Your task to perform on an android device: all mails in gmail Image 0: 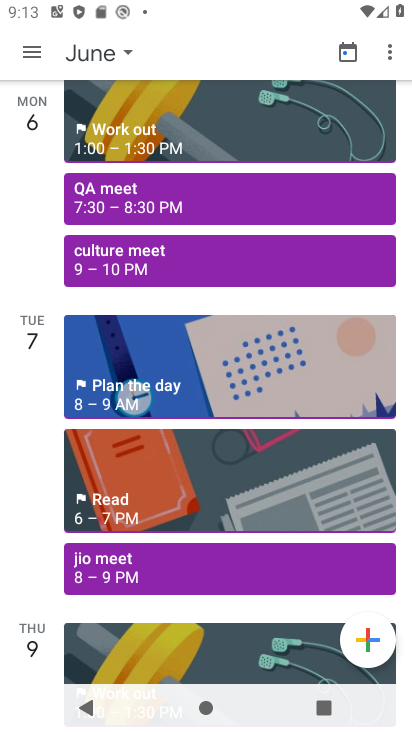
Step 0: press home button
Your task to perform on an android device: all mails in gmail Image 1: 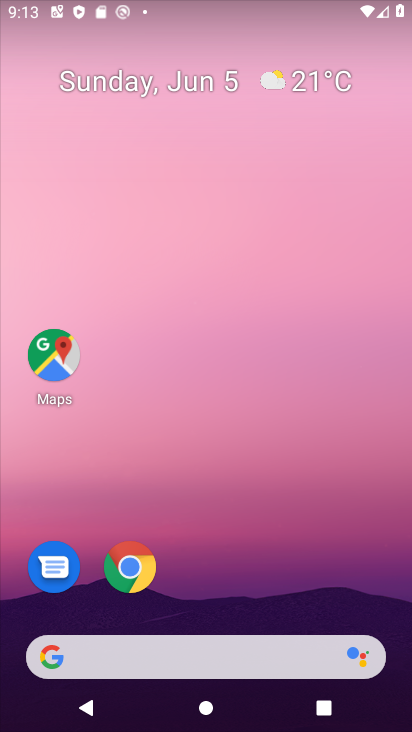
Step 1: drag from (229, 639) to (211, 386)
Your task to perform on an android device: all mails in gmail Image 2: 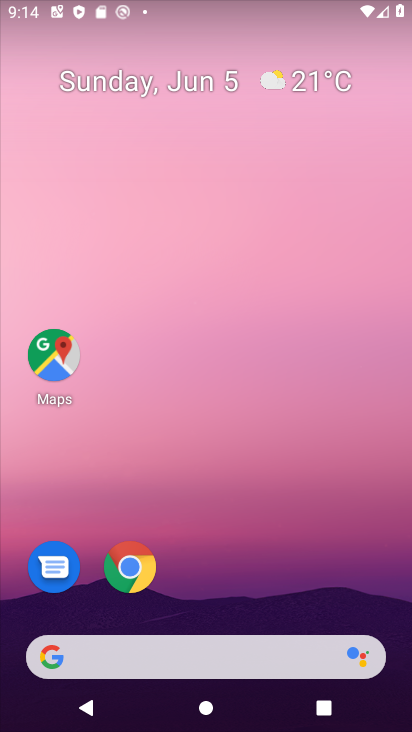
Step 2: drag from (223, 637) to (233, 241)
Your task to perform on an android device: all mails in gmail Image 3: 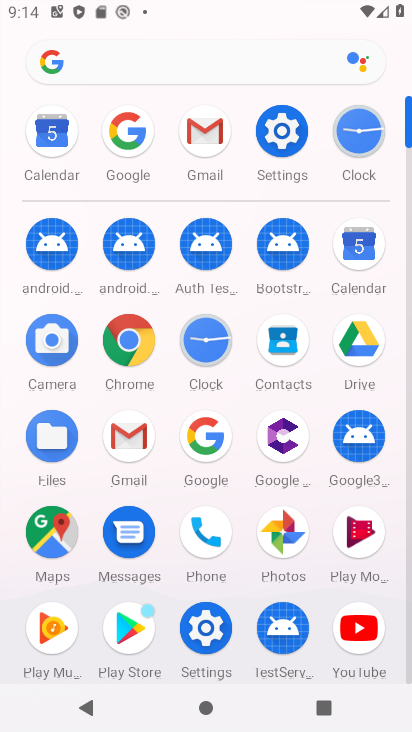
Step 3: click (199, 138)
Your task to perform on an android device: all mails in gmail Image 4: 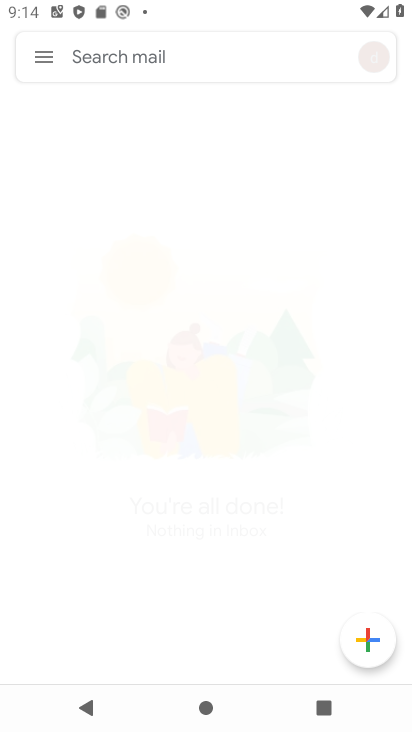
Step 4: click (47, 57)
Your task to perform on an android device: all mails in gmail Image 5: 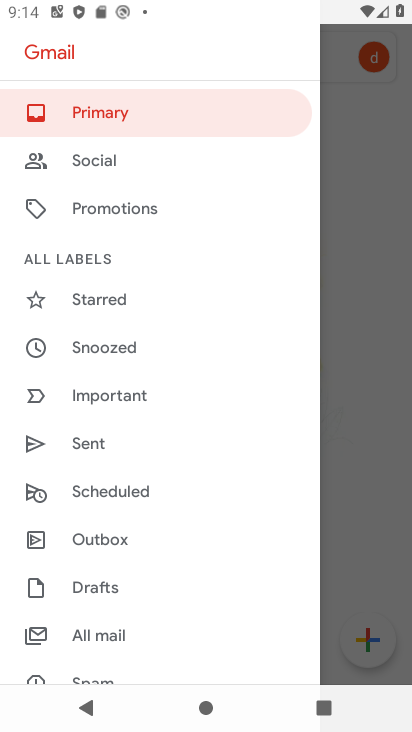
Step 5: click (108, 628)
Your task to perform on an android device: all mails in gmail Image 6: 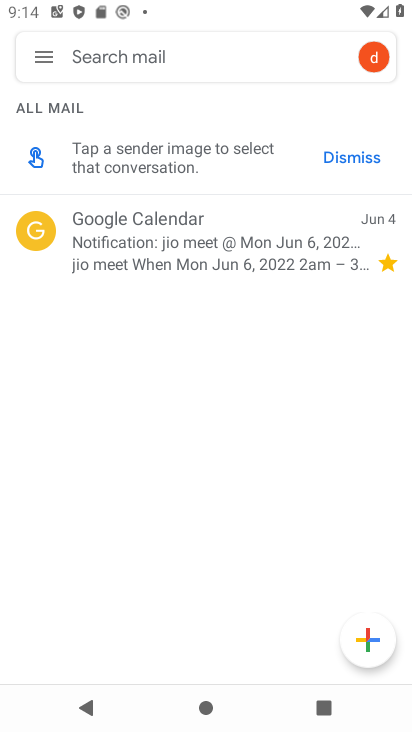
Step 6: task complete